Your task to perform on an android device: change the clock display to analog Image 0: 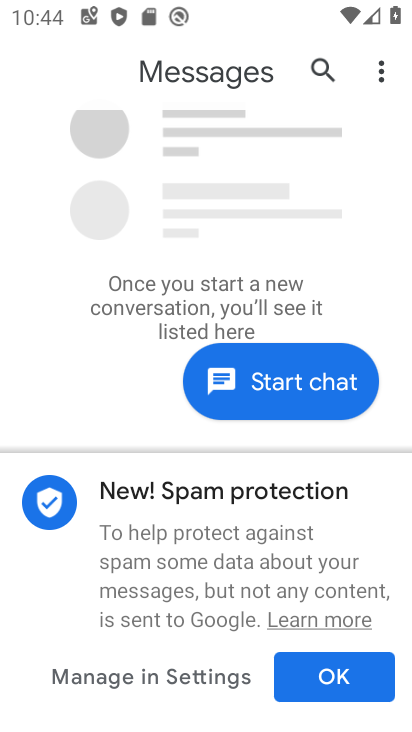
Step 0: press home button
Your task to perform on an android device: change the clock display to analog Image 1: 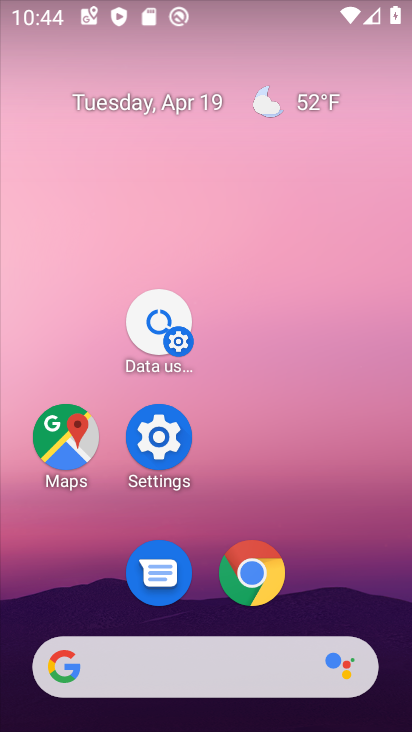
Step 1: drag from (370, 590) to (365, 70)
Your task to perform on an android device: change the clock display to analog Image 2: 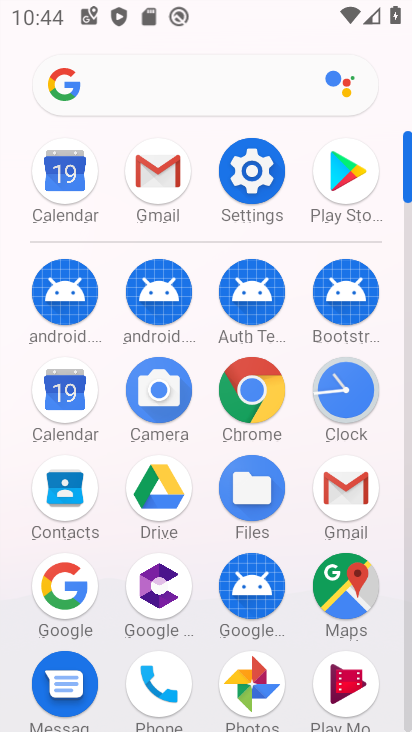
Step 2: click (335, 385)
Your task to perform on an android device: change the clock display to analog Image 3: 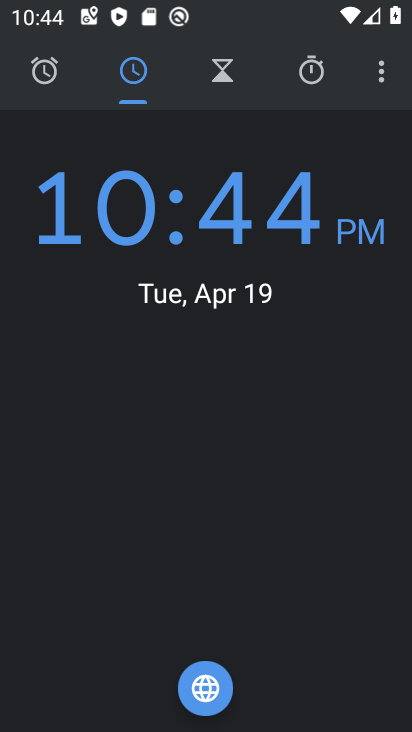
Step 3: click (385, 70)
Your task to perform on an android device: change the clock display to analog Image 4: 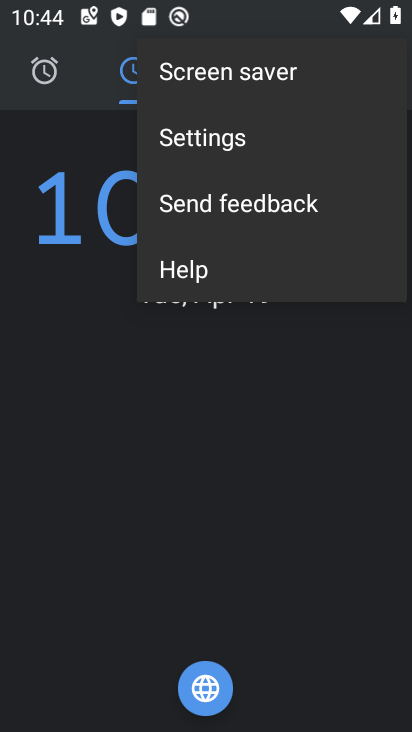
Step 4: click (201, 146)
Your task to perform on an android device: change the clock display to analog Image 5: 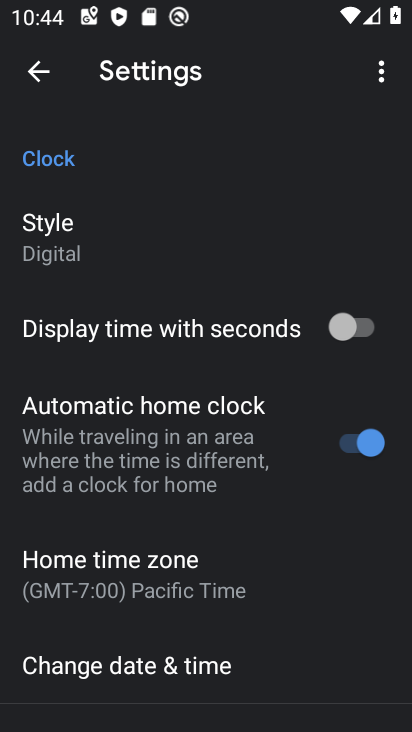
Step 5: click (66, 250)
Your task to perform on an android device: change the clock display to analog Image 6: 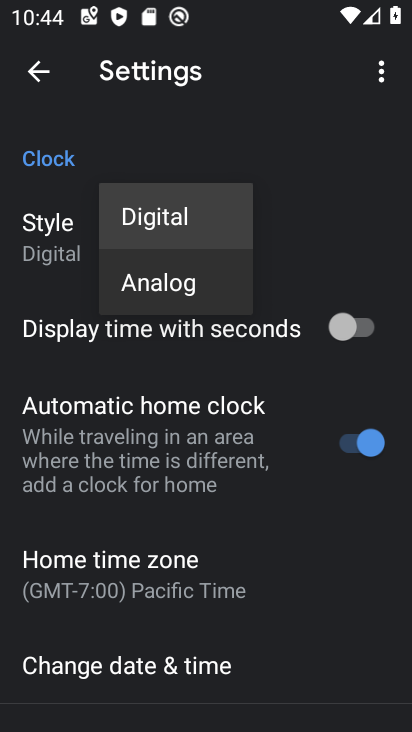
Step 6: click (145, 282)
Your task to perform on an android device: change the clock display to analog Image 7: 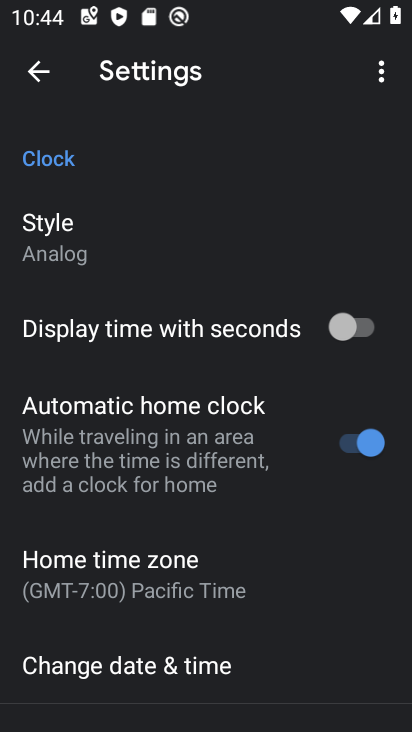
Step 7: task complete